Your task to perform on an android device: Show me popular games on the Play Store Image 0: 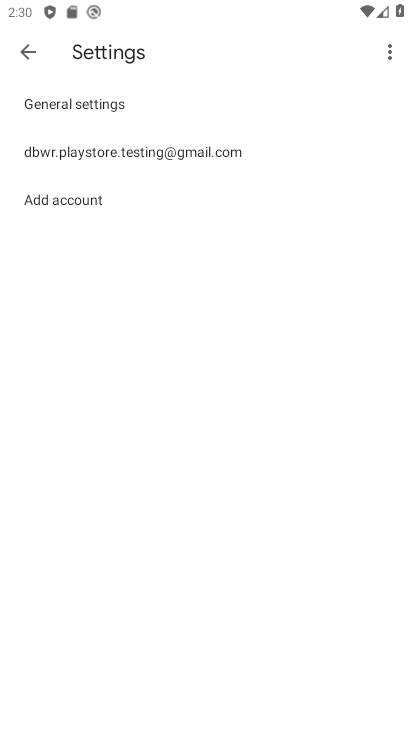
Step 0: press home button
Your task to perform on an android device: Show me popular games on the Play Store Image 1: 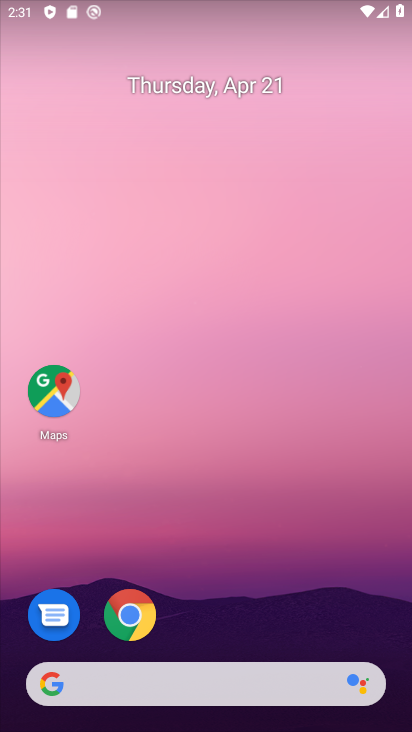
Step 1: drag from (203, 638) to (211, 90)
Your task to perform on an android device: Show me popular games on the Play Store Image 2: 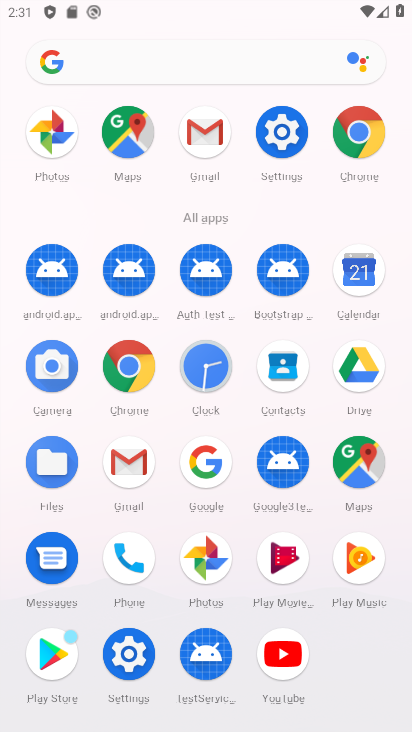
Step 2: click (40, 661)
Your task to perform on an android device: Show me popular games on the Play Store Image 3: 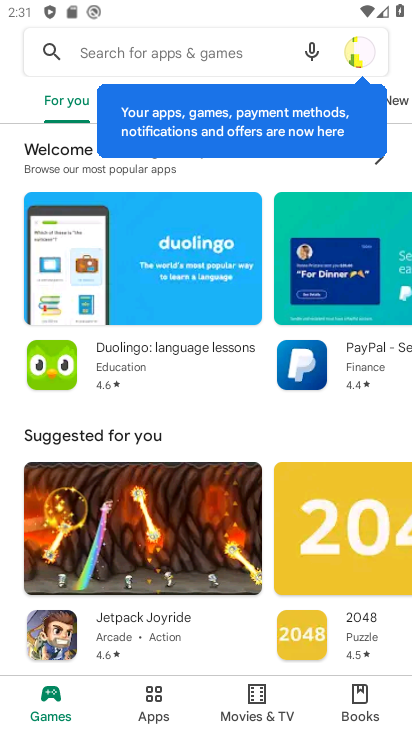
Step 3: click (144, 700)
Your task to perform on an android device: Show me popular games on the Play Store Image 4: 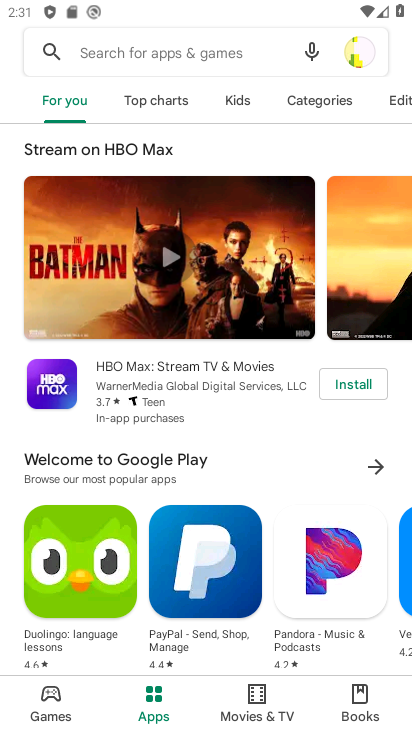
Step 4: drag from (123, 429) to (128, 35)
Your task to perform on an android device: Show me popular games on the Play Store Image 5: 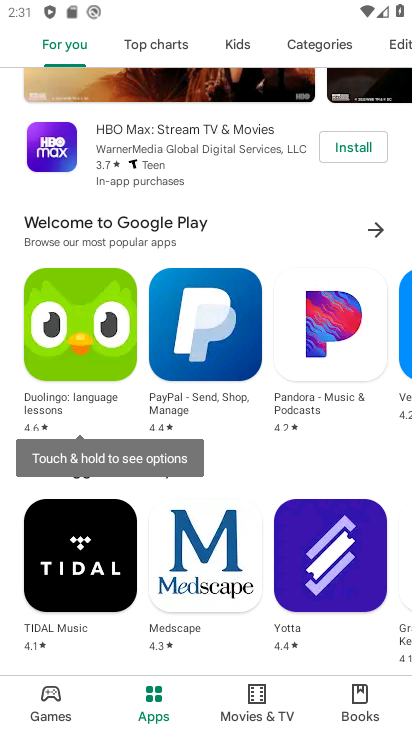
Step 5: click (327, 51)
Your task to perform on an android device: Show me popular games on the Play Store Image 6: 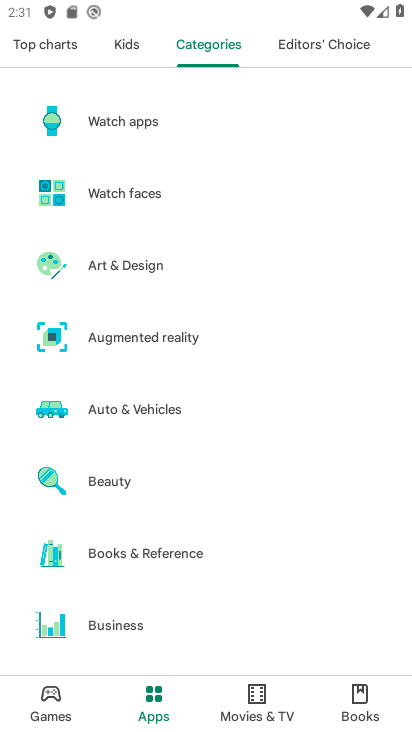
Step 6: drag from (141, 579) to (155, 225)
Your task to perform on an android device: Show me popular games on the Play Store Image 7: 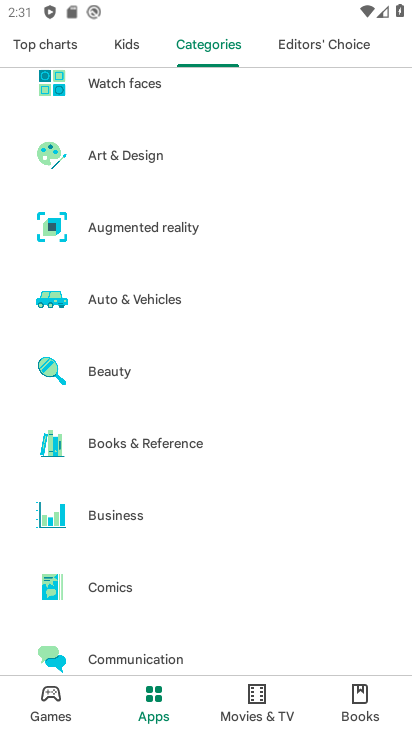
Step 7: drag from (97, 626) to (131, 332)
Your task to perform on an android device: Show me popular games on the Play Store Image 8: 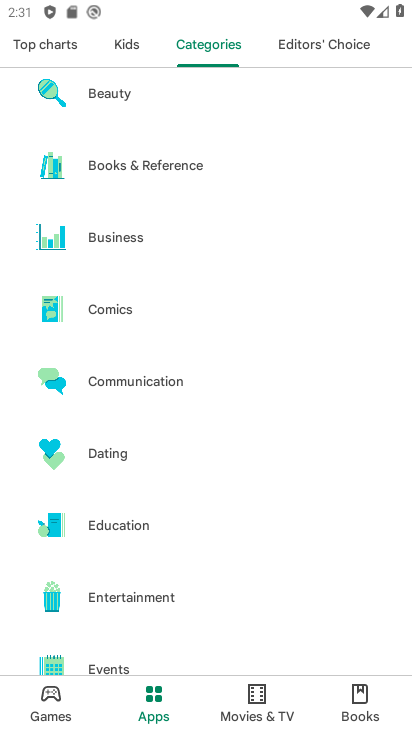
Step 8: drag from (129, 617) to (171, 310)
Your task to perform on an android device: Show me popular games on the Play Store Image 9: 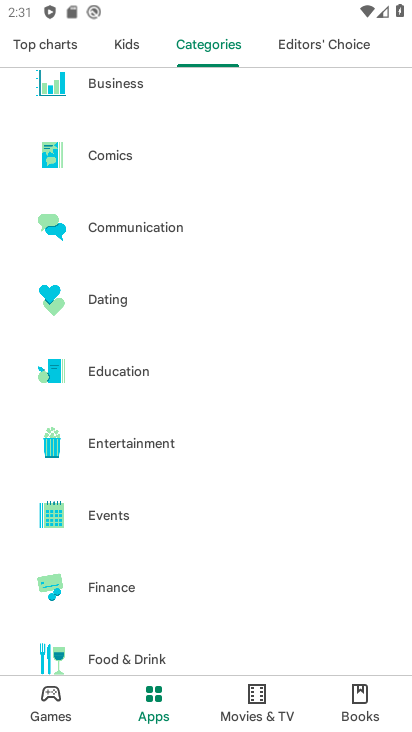
Step 9: drag from (36, 651) to (164, 154)
Your task to perform on an android device: Show me popular games on the Play Store Image 10: 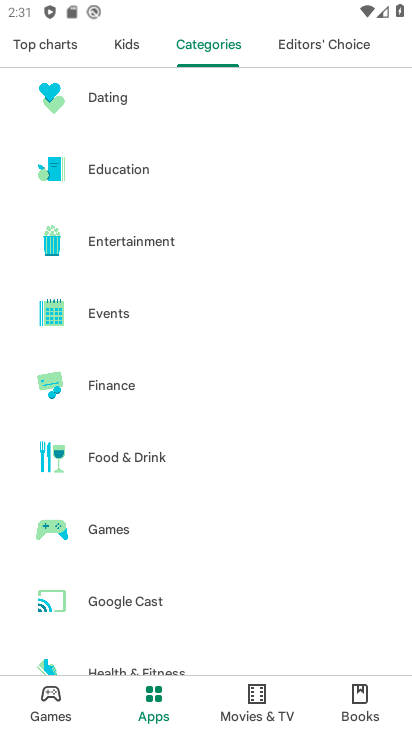
Step 10: drag from (146, 632) to (174, 197)
Your task to perform on an android device: Show me popular games on the Play Store Image 11: 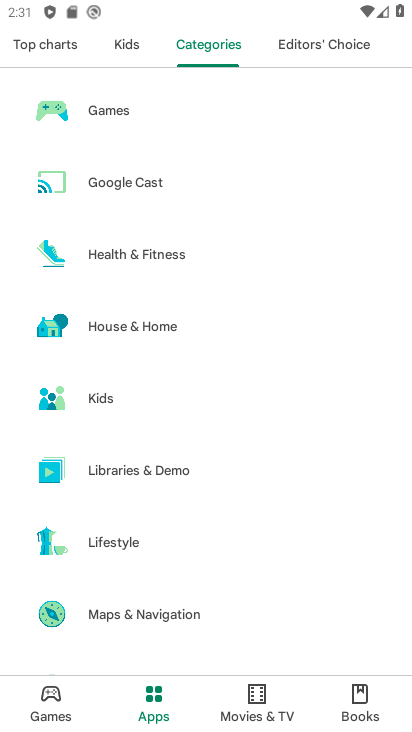
Step 11: drag from (281, 651) to (272, 235)
Your task to perform on an android device: Show me popular games on the Play Store Image 12: 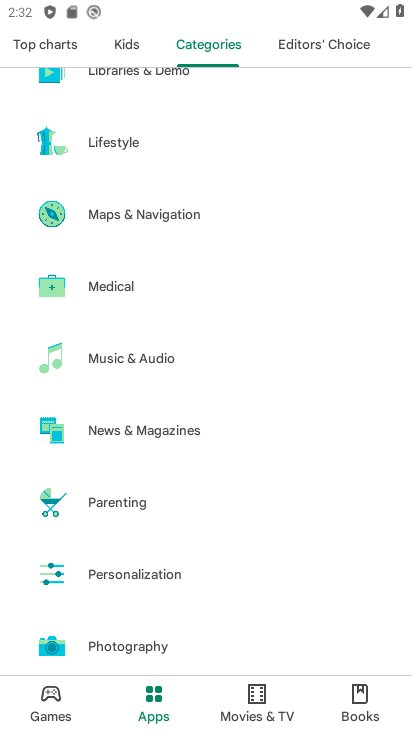
Step 12: drag from (141, 614) to (159, 40)
Your task to perform on an android device: Show me popular games on the Play Store Image 13: 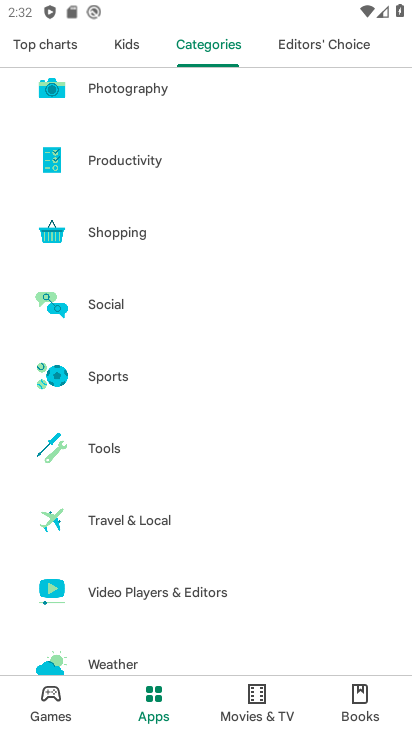
Step 13: drag from (196, 186) to (209, 569)
Your task to perform on an android device: Show me popular games on the Play Store Image 14: 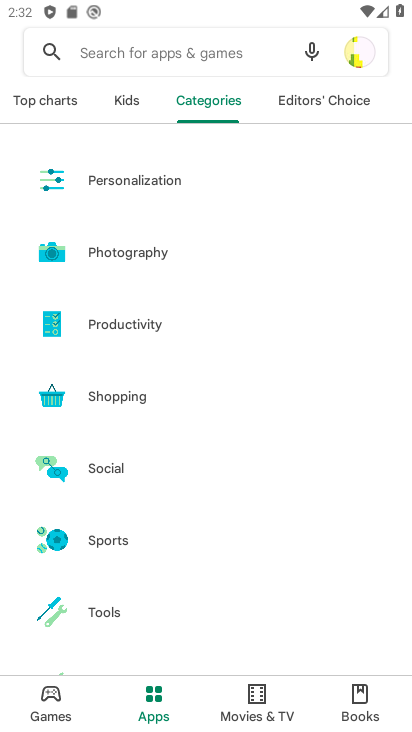
Step 14: drag from (202, 225) to (229, 604)
Your task to perform on an android device: Show me popular games on the Play Store Image 15: 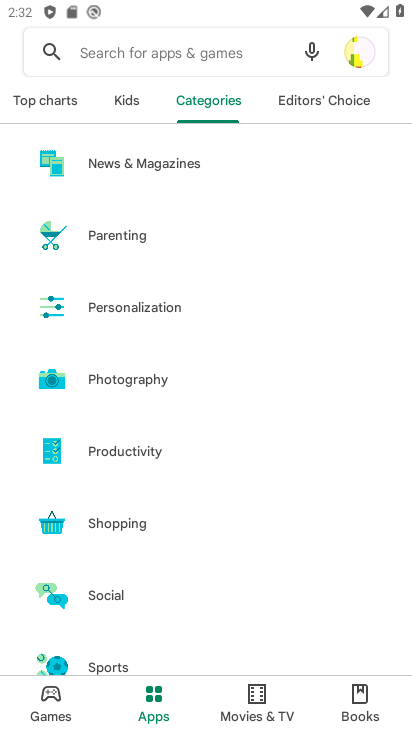
Step 15: drag from (208, 205) to (232, 500)
Your task to perform on an android device: Show me popular games on the Play Store Image 16: 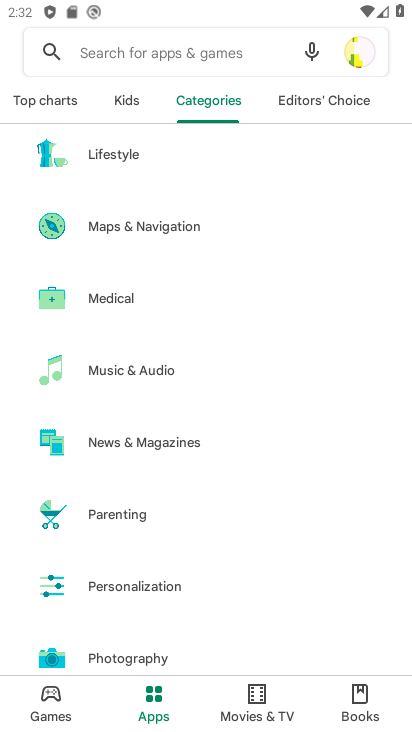
Step 16: click (36, 724)
Your task to perform on an android device: Show me popular games on the Play Store Image 17: 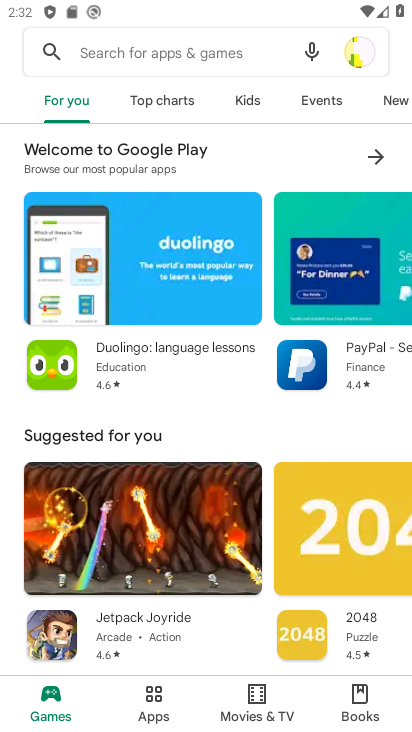
Step 17: click (162, 106)
Your task to perform on an android device: Show me popular games on the Play Store Image 18: 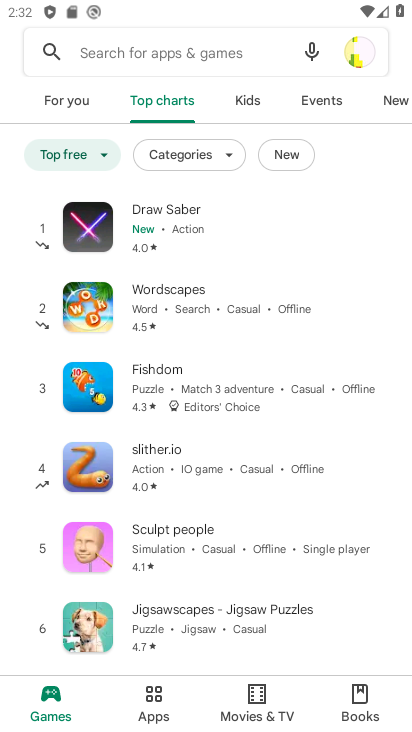
Step 18: click (233, 161)
Your task to perform on an android device: Show me popular games on the Play Store Image 19: 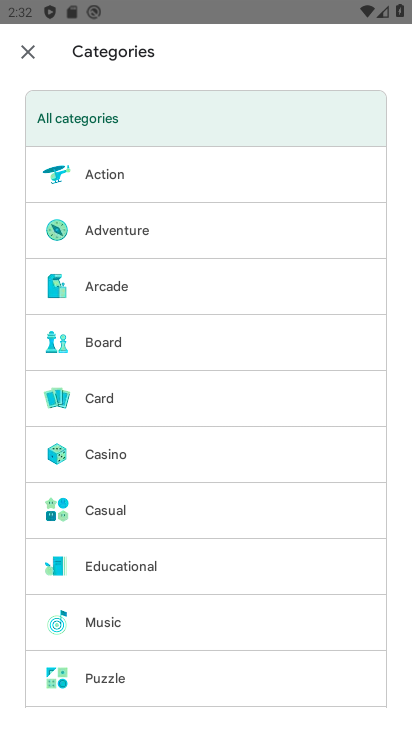
Step 19: click (43, 56)
Your task to perform on an android device: Show me popular games on the Play Store Image 20: 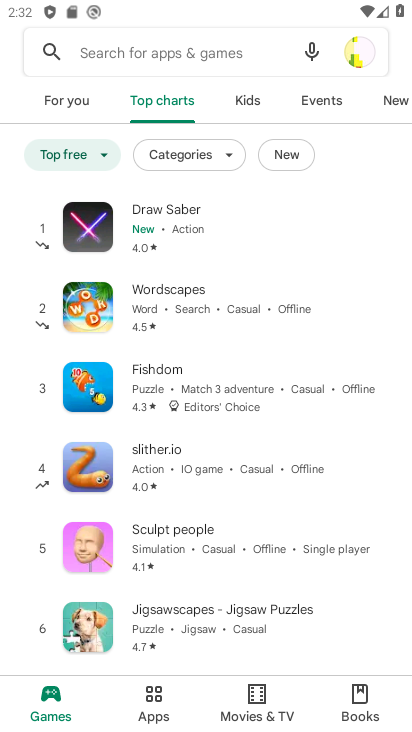
Step 20: click (294, 166)
Your task to perform on an android device: Show me popular games on the Play Store Image 21: 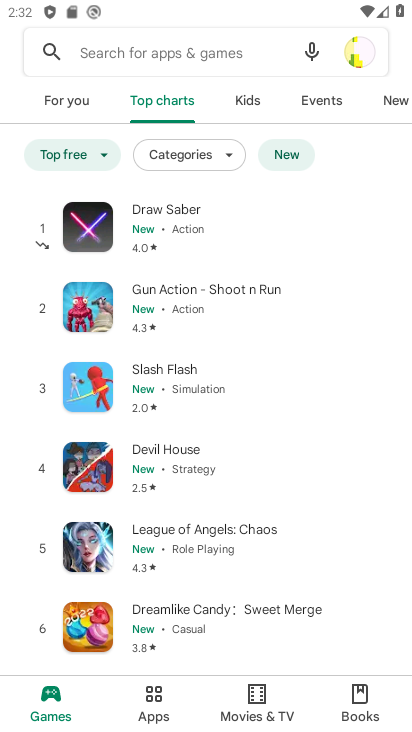
Step 21: click (88, 155)
Your task to perform on an android device: Show me popular games on the Play Store Image 22: 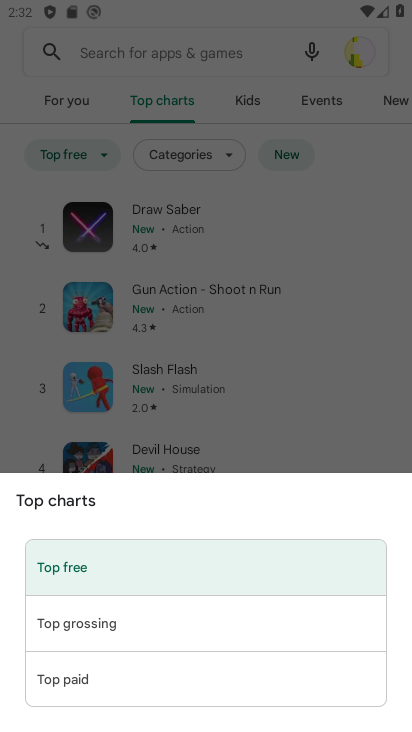
Step 22: click (102, 621)
Your task to perform on an android device: Show me popular games on the Play Store Image 23: 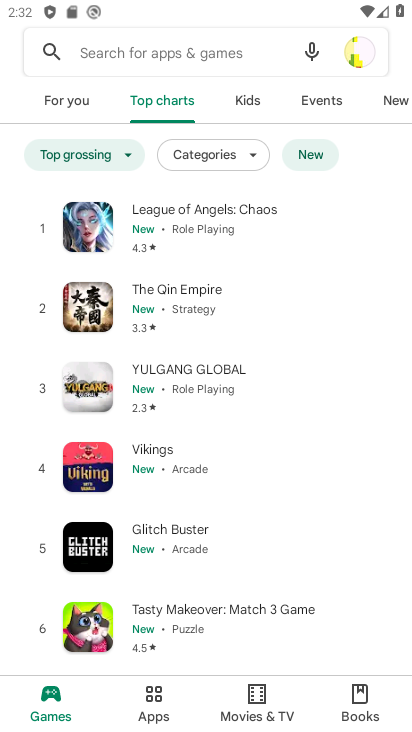
Step 23: task complete